Your task to perform on an android device: Show me productivity apps on the Play Store Image 0: 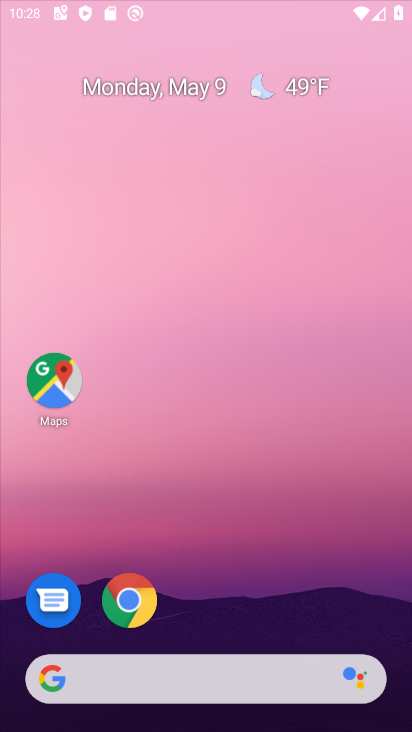
Step 0: click (320, 168)
Your task to perform on an android device: Show me productivity apps on the Play Store Image 1: 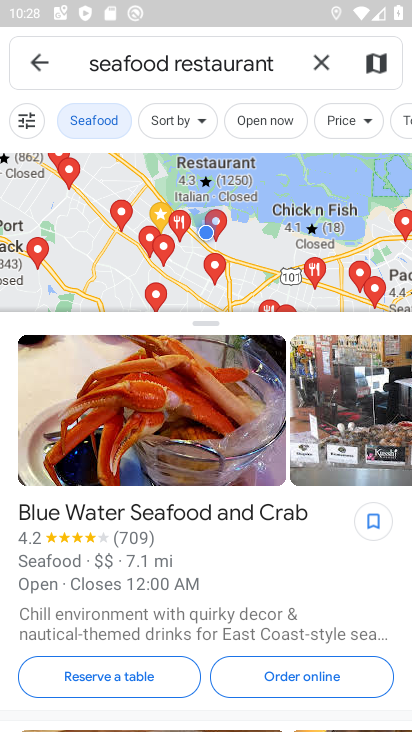
Step 1: press home button
Your task to perform on an android device: Show me productivity apps on the Play Store Image 2: 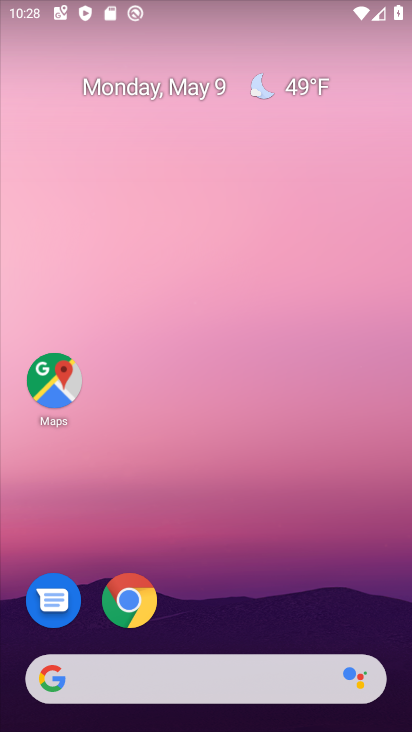
Step 2: drag from (363, 623) to (326, 160)
Your task to perform on an android device: Show me productivity apps on the Play Store Image 3: 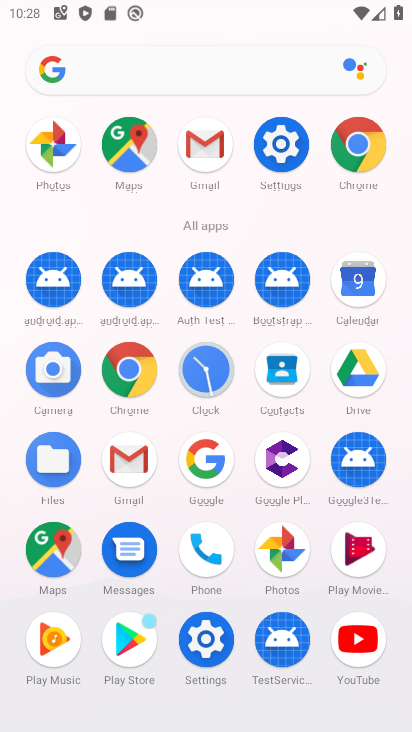
Step 3: click (138, 653)
Your task to perform on an android device: Show me productivity apps on the Play Store Image 4: 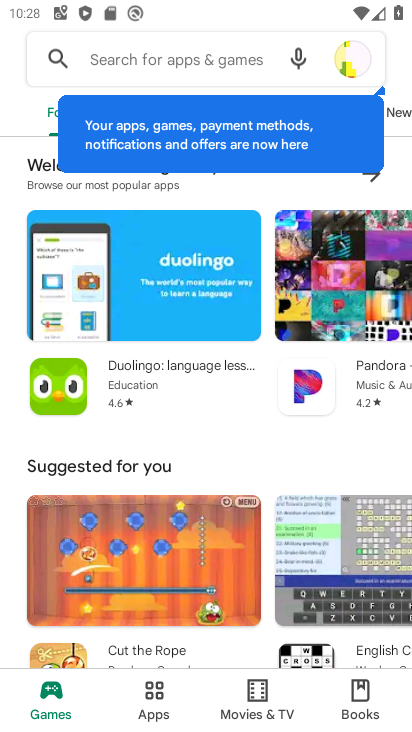
Step 4: click (147, 724)
Your task to perform on an android device: Show me productivity apps on the Play Store Image 5: 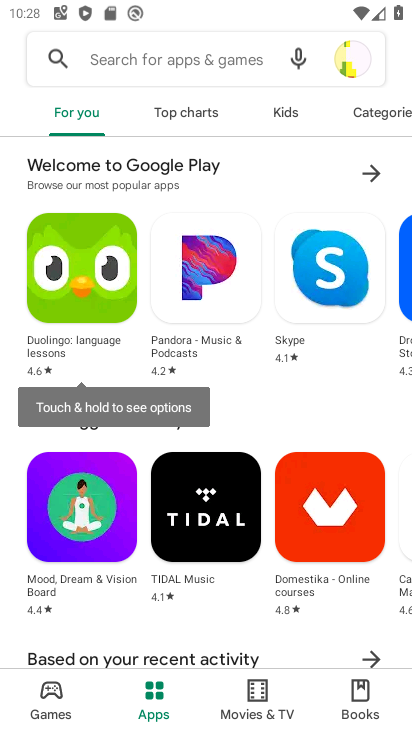
Step 5: click (355, 109)
Your task to perform on an android device: Show me productivity apps on the Play Store Image 6: 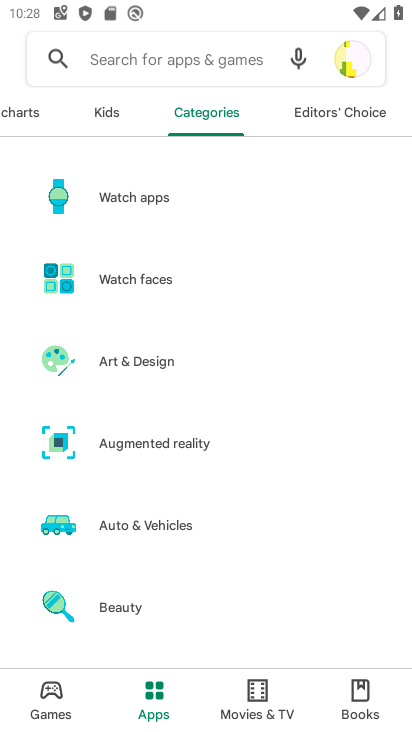
Step 6: drag from (221, 619) to (277, 186)
Your task to perform on an android device: Show me productivity apps on the Play Store Image 7: 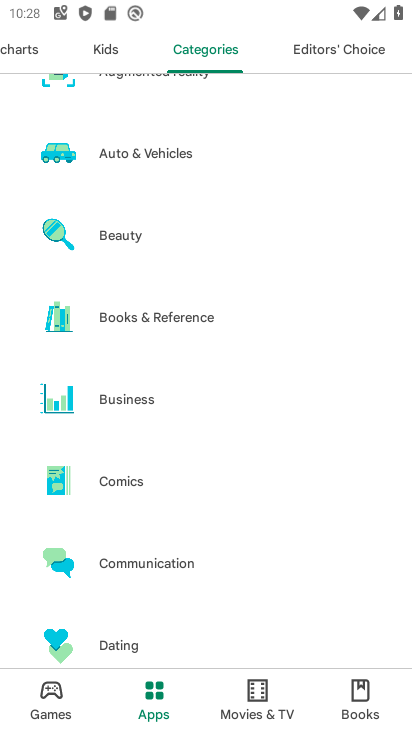
Step 7: drag from (252, 607) to (274, 221)
Your task to perform on an android device: Show me productivity apps on the Play Store Image 8: 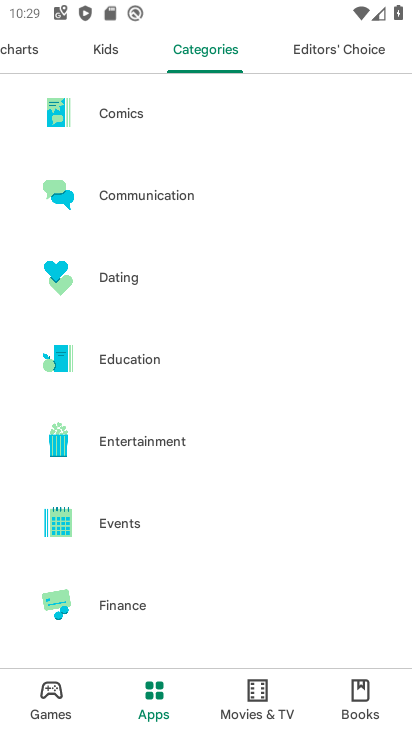
Step 8: drag from (223, 613) to (282, 232)
Your task to perform on an android device: Show me productivity apps on the Play Store Image 9: 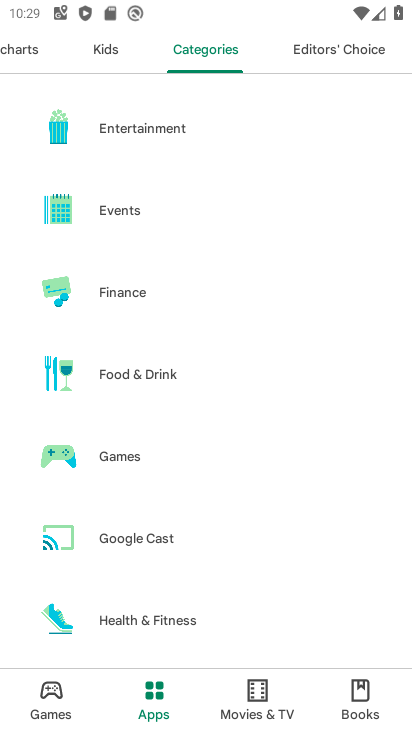
Step 9: drag from (233, 522) to (264, 233)
Your task to perform on an android device: Show me productivity apps on the Play Store Image 10: 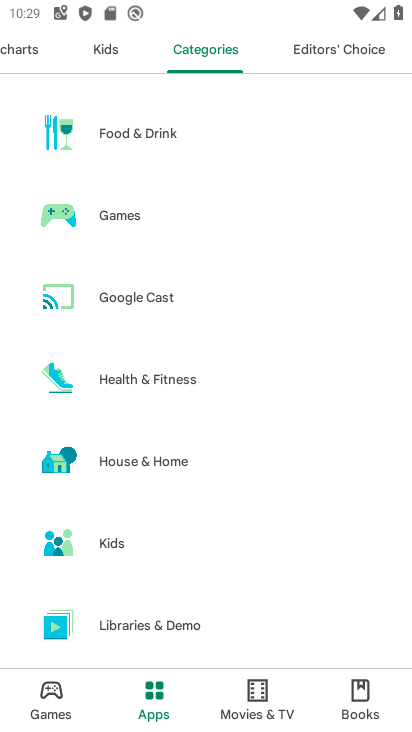
Step 10: drag from (199, 562) to (235, 292)
Your task to perform on an android device: Show me productivity apps on the Play Store Image 11: 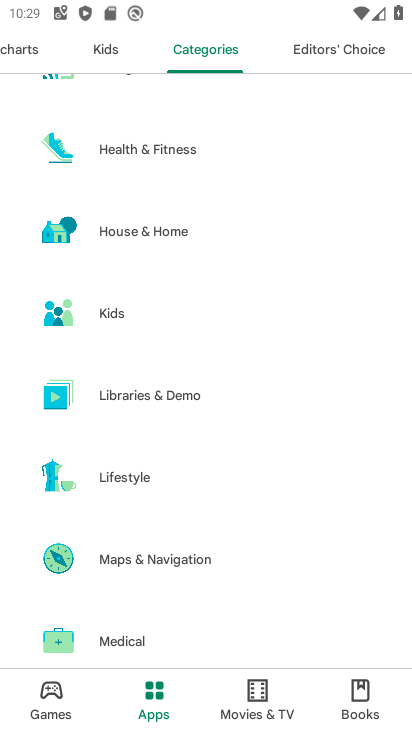
Step 11: drag from (277, 588) to (291, 309)
Your task to perform on an android device: Show me productivity apps on the Play Store Image 12: 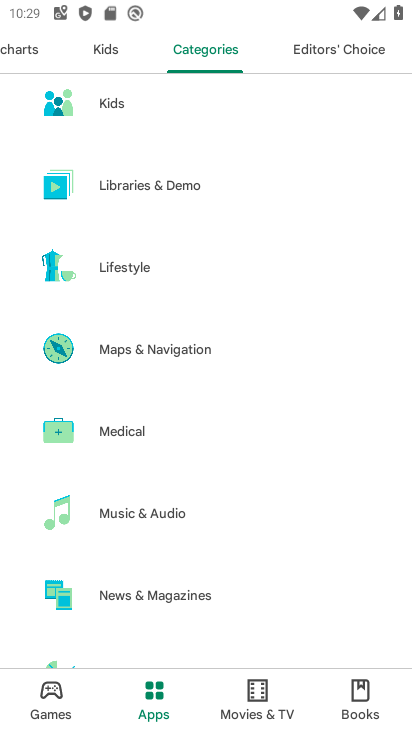
Step 12: drag from (219, 607) to (296, 196)
Your task to perform on an android device: Show me productivity apps on the Play Store Image 13: 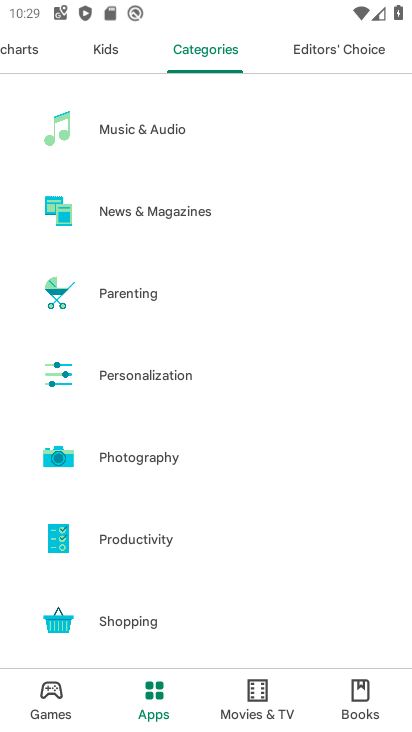
Step 13: click (187, 539)
Your task to perform on an android device: Show me productivity apps on the Play Store Image 14: 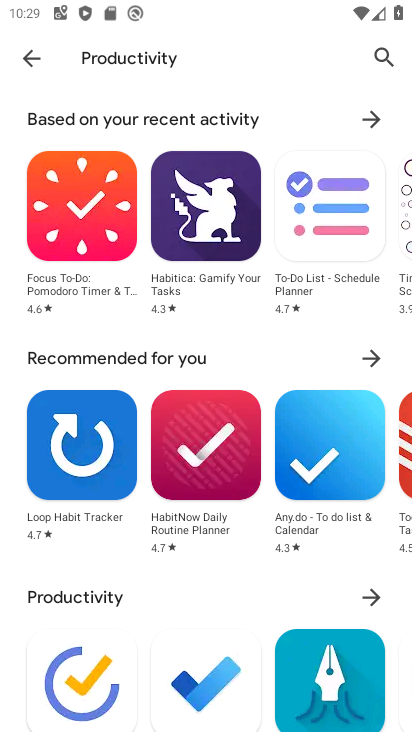
Step 14: task complete